Your task to perform on an android device: Check the weather Image 0: 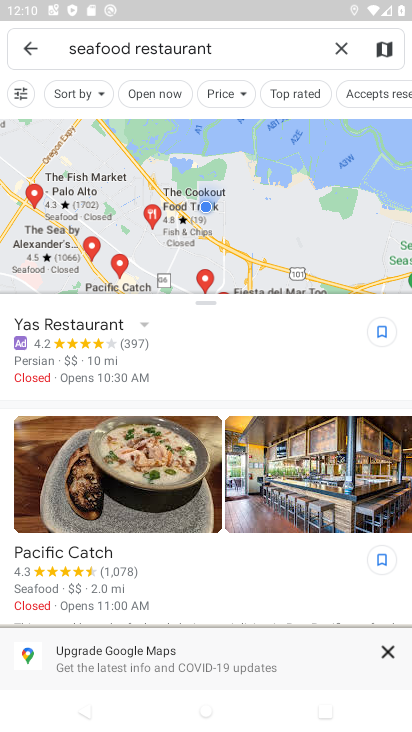
Step 0: press home button
Your task to perform on an android device: Check the weather Image 1: 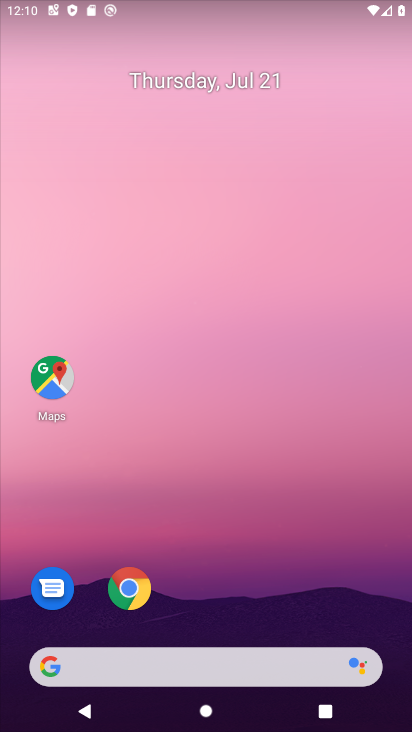
Step 1: click (262, 666)
Your task to perform on an android device: Check the weather Image 2: 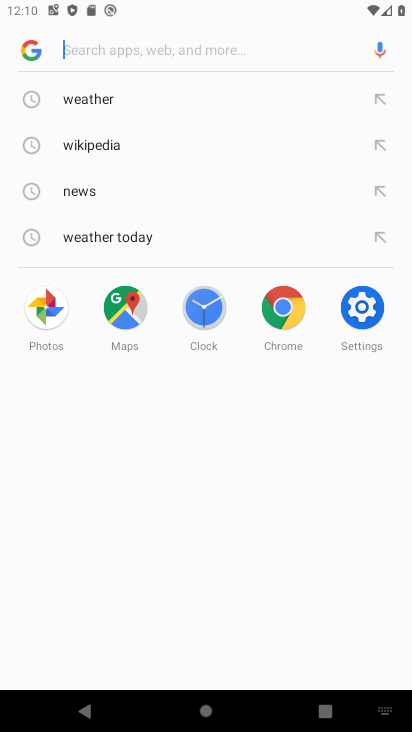
Step 2: click (80, 92)
Your task to perform on an android device: Check the weather Image 3: 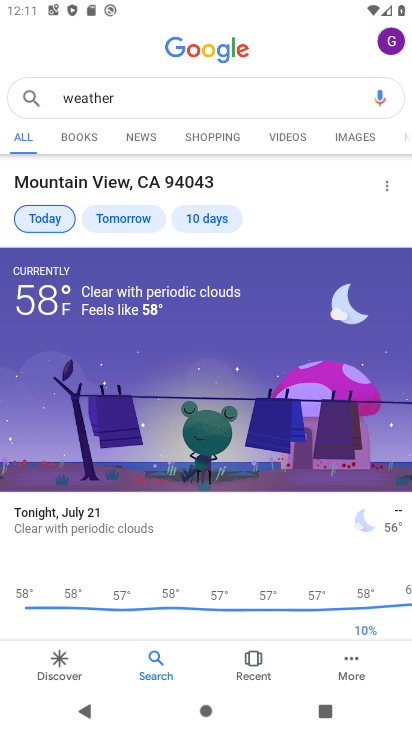
Step 3: task complete